Your task to perform on an android device: Open Chrome and go to settings Image 0: 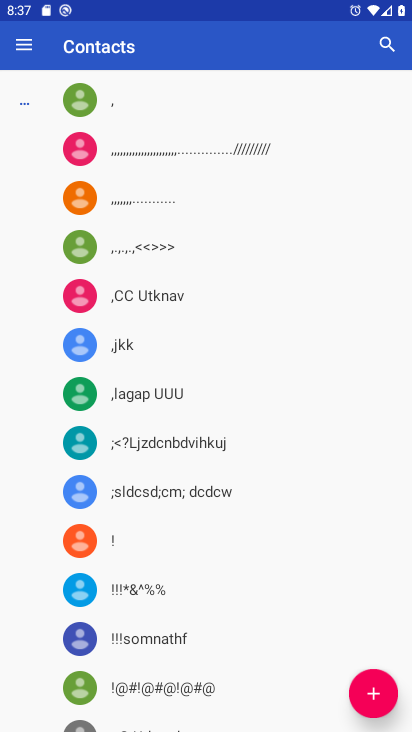
Step 0: press home button
Your task to perform on an android device: Open Chrome and go to settings Image 1: 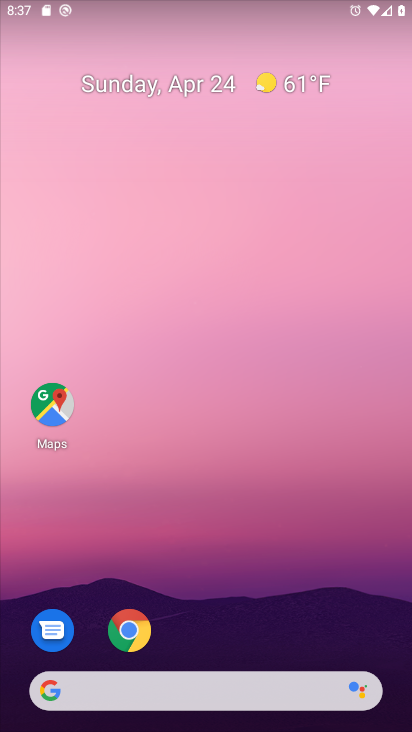
Step 1: drag from (351, 606) to (376, 48)
Your task to perform on an android device: Open Chrome and go to settings Image 2: 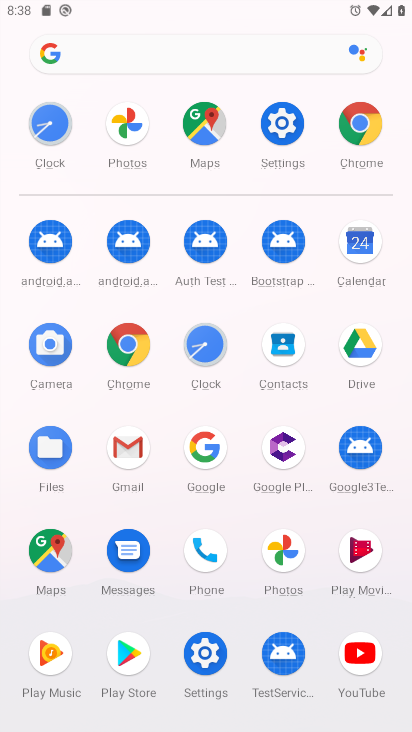
Step 2: click (366, 125)
Your task to perform on an android device: Open Chrome and go to settings Image 3: 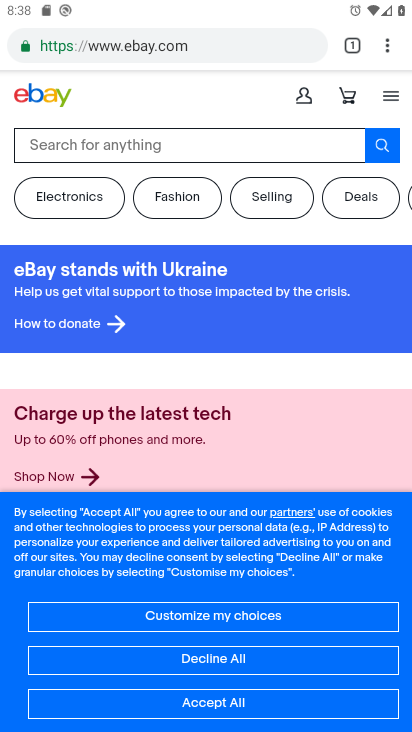
Step 3: click (384, 48)
Your task to perform on an android device: Open Chrome and go to settings Image 4: 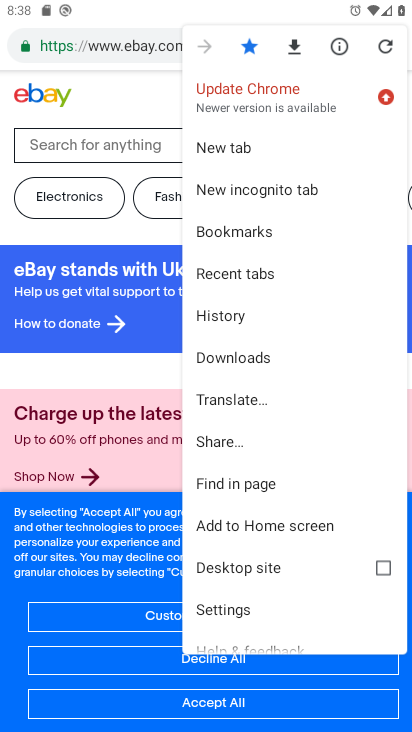
Step 4: drag from (366, 380) to (364, 242)
Your task to perform on an android device: Open Chrome and go to settings Image 5: 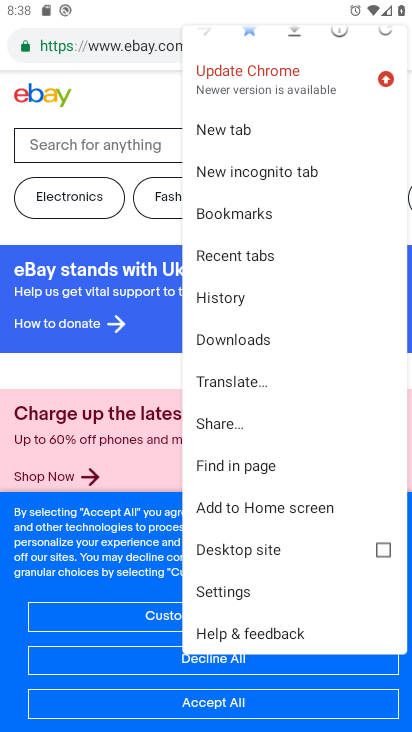
Step 5: click (245, 586)
Your task to perform on an android device: Open Chrome and go to settings Image 6: 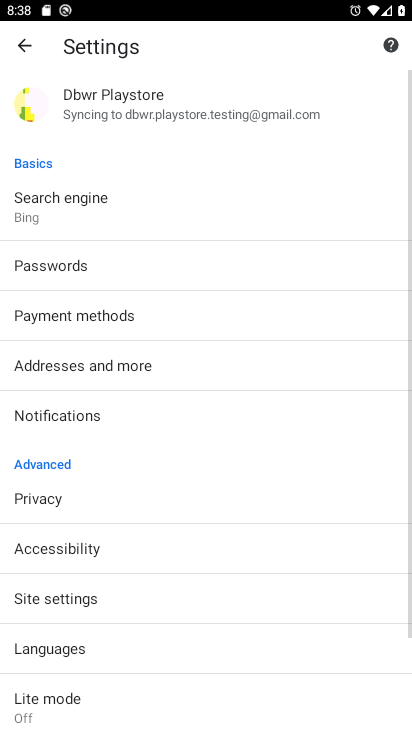
Step 6: task complete